Your task to perform on an android device: toggle notification dots Image 0: 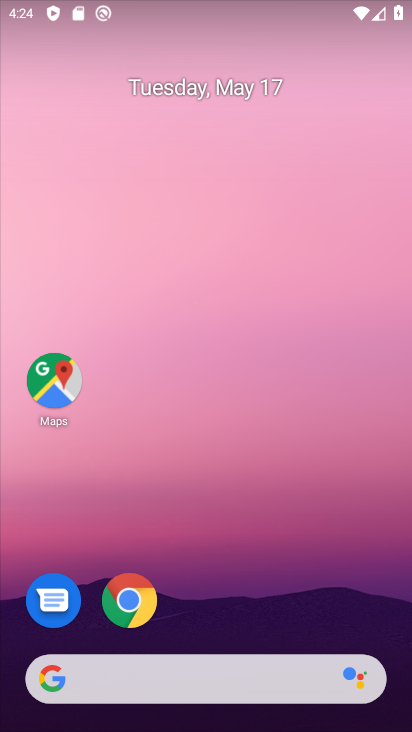
Step 0: drag from (387, 634) to (329, 27)
Your task to perform on an android device: toggle notification dots Image 1: 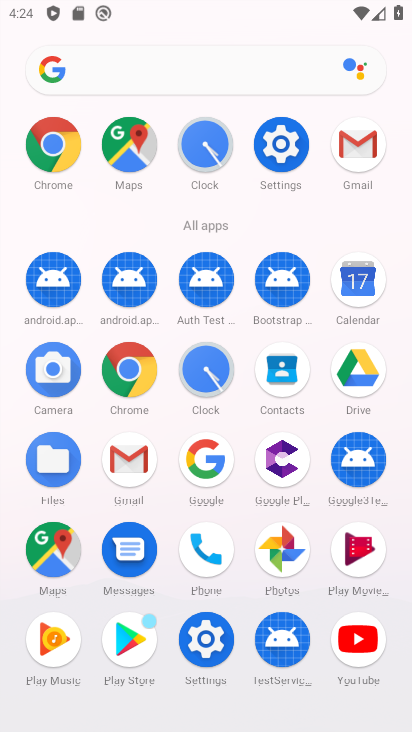
Step 1: click (203, 637)
Your task to perform on an android device: toggle notification dots Image 2: 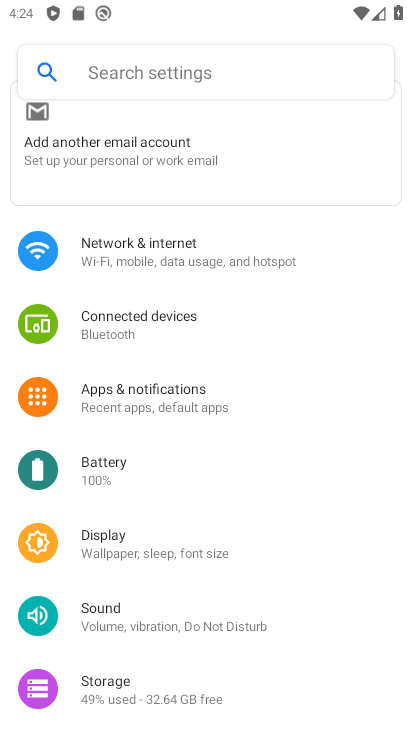
Step 2: click (120, 390)
Your task to perform on an android device: toggle notification dots Image 3: 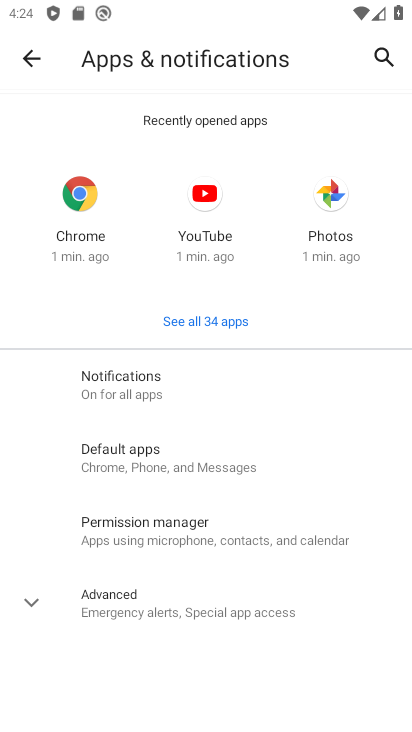
Step 3: click (30, 600)
Your task to perform on an android device: toggle notification dots Image 4: 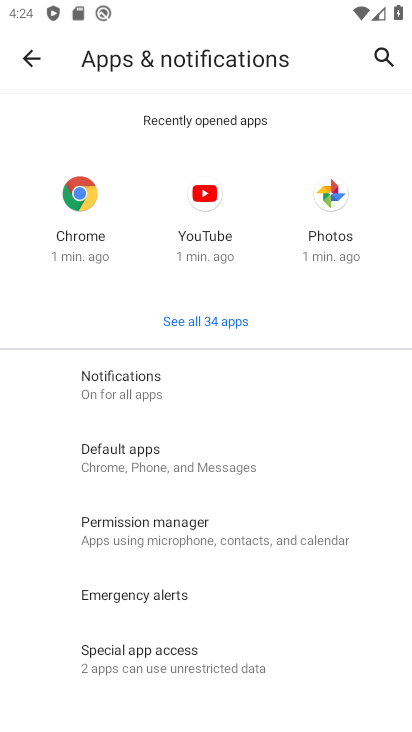
Step 4: click (121, 379)
Your task to perform on an android device: toggle notification dots Image 5: 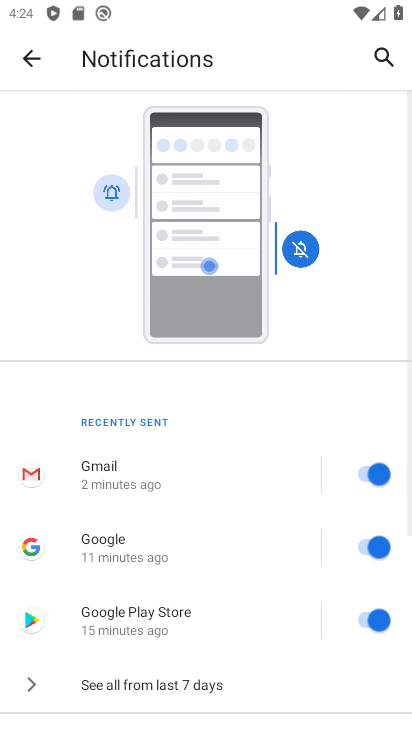
Step 5: drag from (299, 631) to (240, 168)
Your task to perform on an android device: toggle notification dots Image 6: 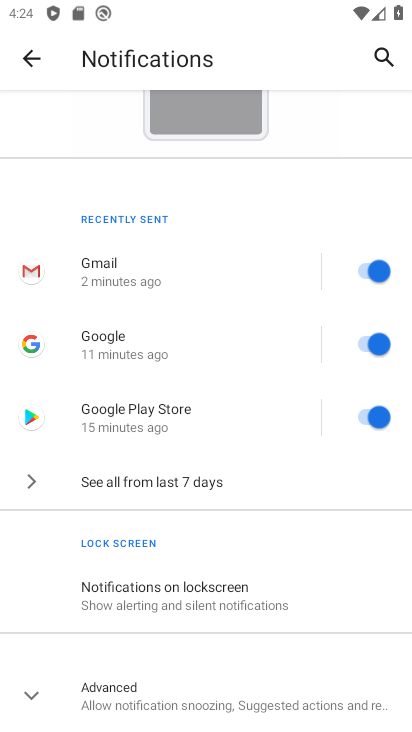
Step 6: click (44, 696)
Your task to perform on an android device: toggle notification dots Image 7: 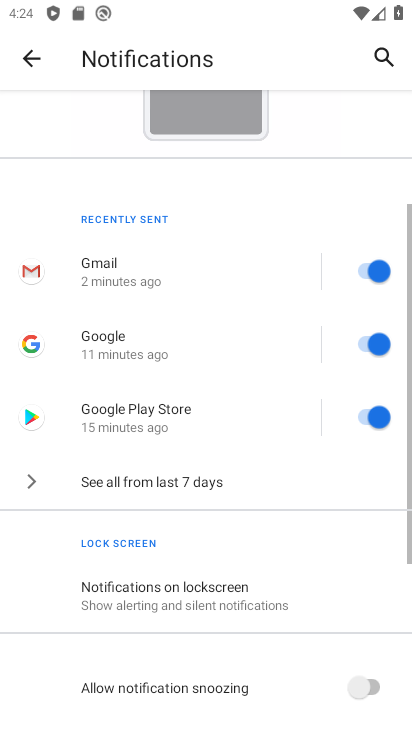
Step 7: drag from (398, 649) to (300, 140)
Your task to perform on an android device: toggle notification dots Image 8: 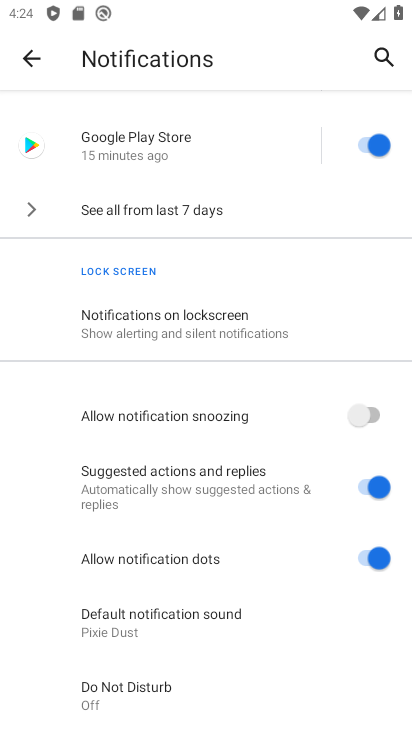
Step 8: click (361, 557)
Your task to perform on an android device: toggle notification dots Image 9: 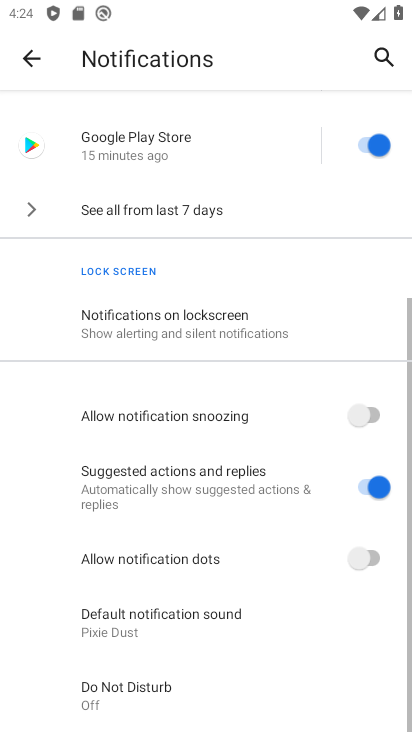
Step 9: task complete